Your task to perform on an android device: clear all cookies in the chrome app Image 0: 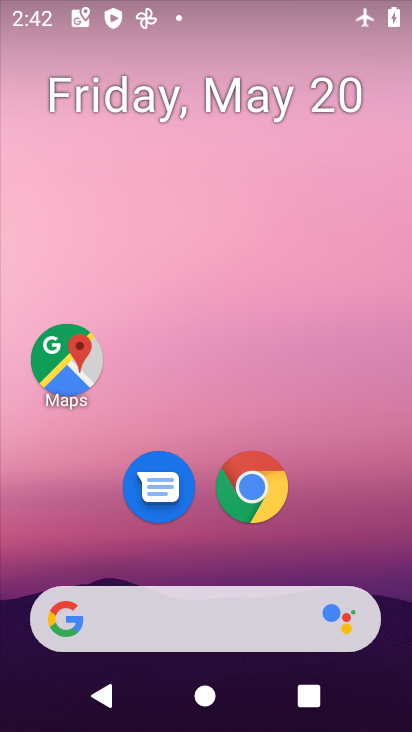
Step 0: drag from (318, 198) to (311, 7)
Your task to perform on an android device: clear all cookies in the chrome app Image 1: 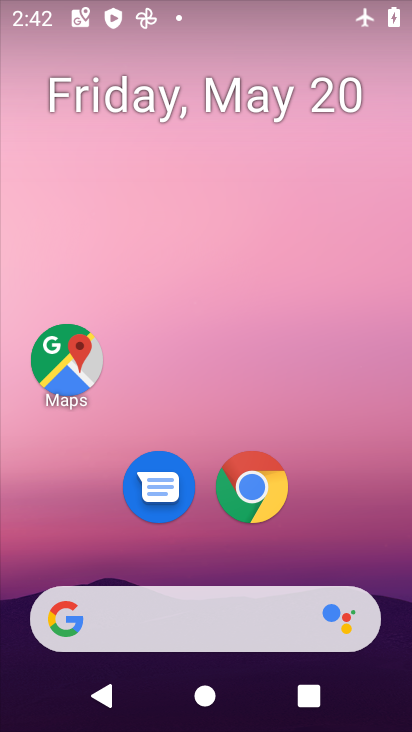
Step 1: click (245, 499)
Your task to perform on an android device: clear all cookies in the chrome app Image 2: 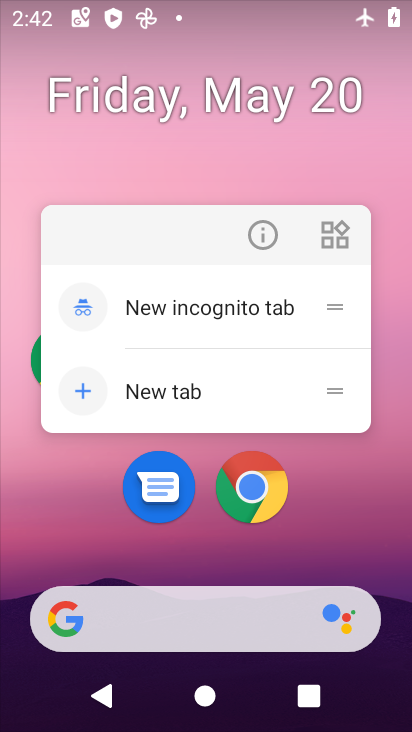
Step 2: click (245, 499)
Your task to perform on an android device: clear all cookies in the chrome app Image 3: 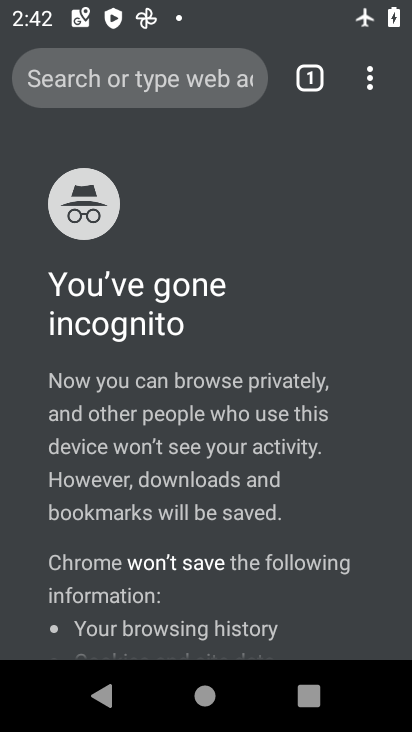
Step 3: task complete